Your task to perform on an android device: Open Google Maps Image 0: 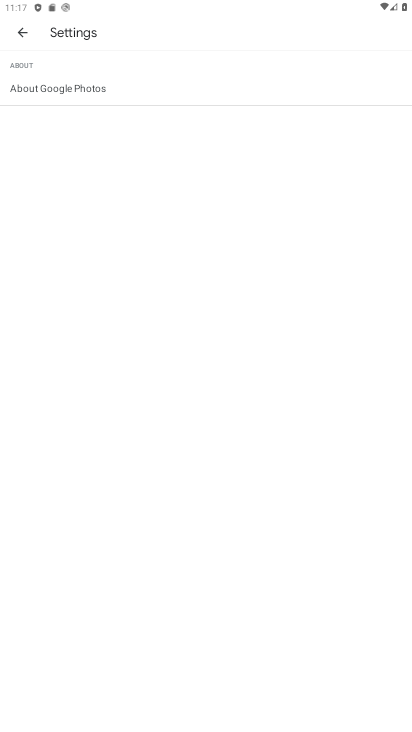
Step 0: press home button
Your task to perform on an android device: Open Google Maps Image 1: 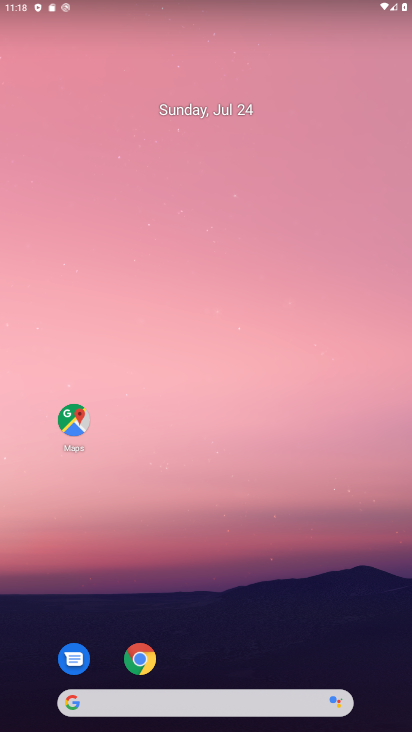
Step 1: click (72, 418)
Your task to perform on an android device: Open Google Maps Image 2: 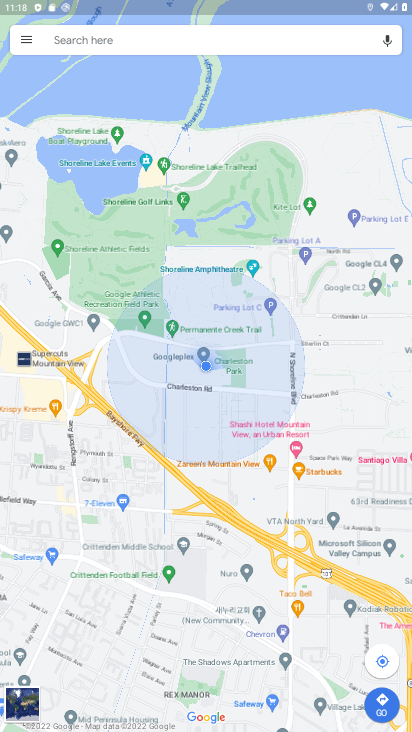
Step 2: task complete